Your task to perform on an android device: Do I have any events today? Image 0: 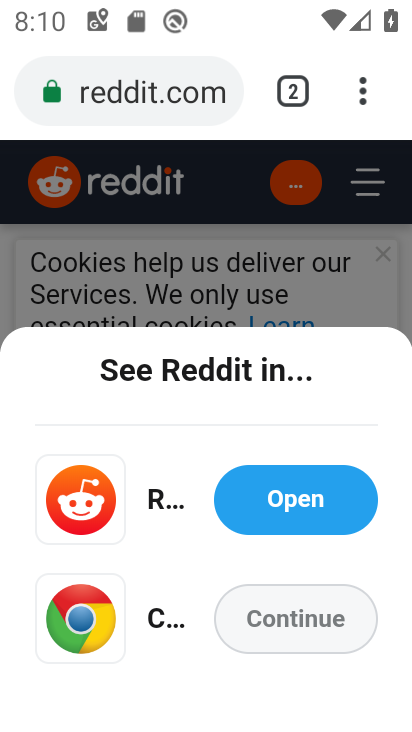
Step 0: press back button
Your task to perform on an android device: Do I have any events today? Image 1: 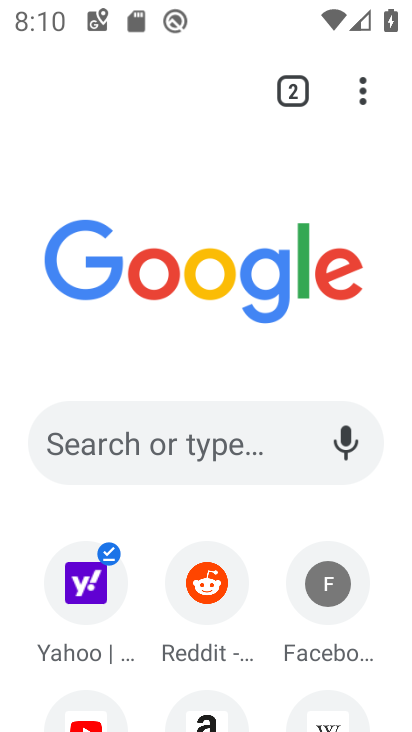
Step 1: press back button
Your task to perform on an android device: Do I have any events today? Image 2: 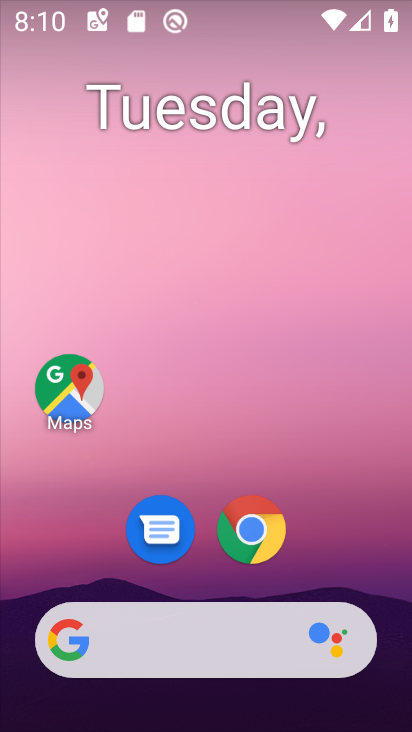
Step 2: drag from (188, 489) to (240, 13)
Your task to perform on an android device: Do I have any events today? Image 3: 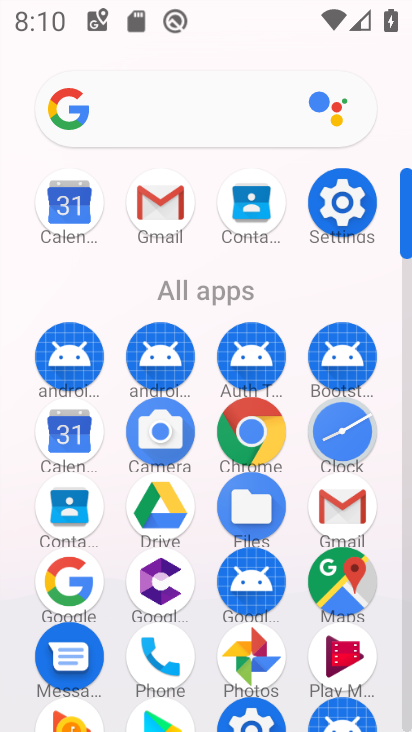
Step 3: click (75, 427)
Your task to perform on an android device: Do I have any events today? Image 4: 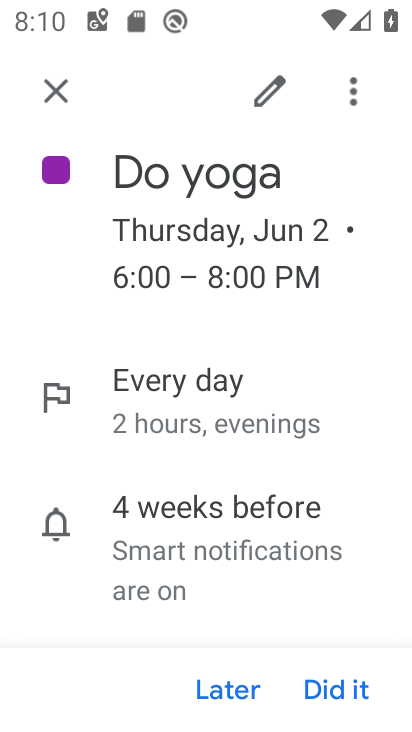
Step 4: click (50, 77)
Your task to perform on an android device: Do I have any events today? Image 5: 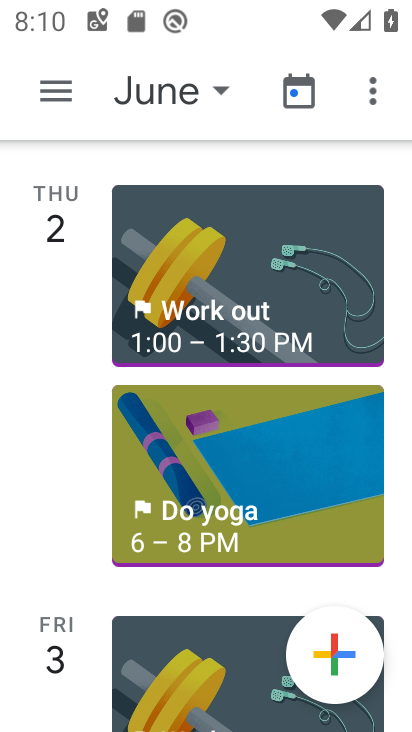
Step 5: drag from (264, 314) to (241, 708)
Your task to perform on an android device: Do I have any events today? Image 6: 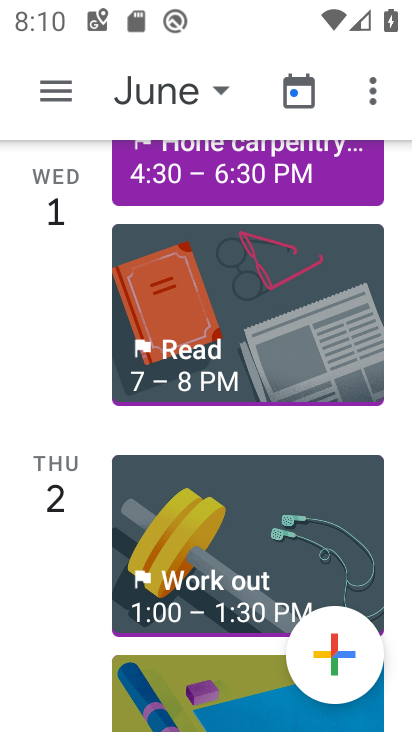
Step 6: drag from (230, 360) to (245, 716)
Your task to perform on an android device: Do I have any events today? Image 7: 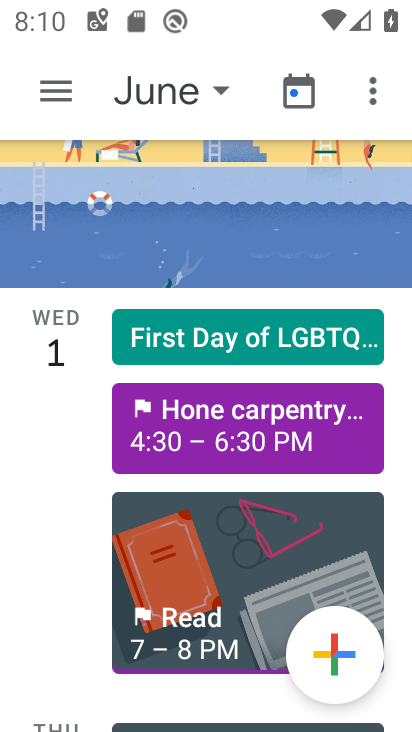
Step 7: click (234, 343)
Your task to perform on an android device: Do I have any events today? Image 8: 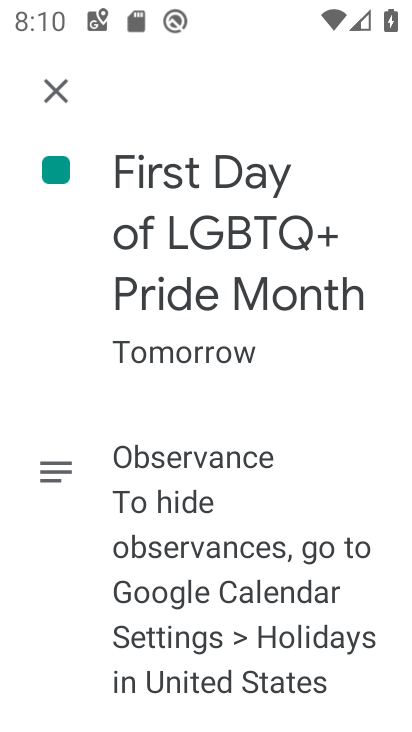
Step 8: task complete